Your task to perform on an android device: add a contact Image 0: 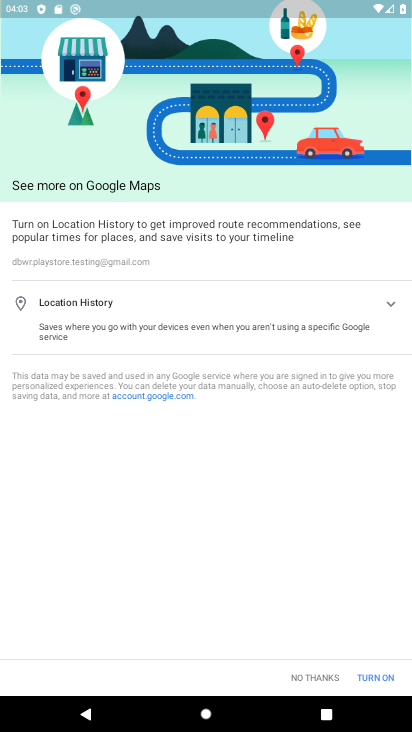
Step 0: click (322, 682)
Your task to perform on an android device: add a contact Image 1: 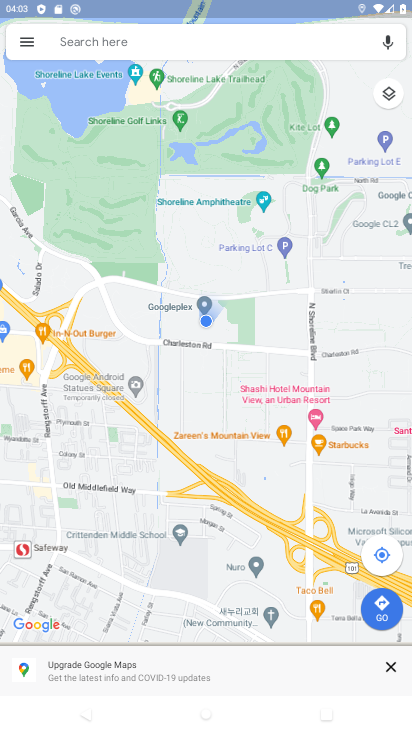
Step 1: press back button
Your task to perform on an android device: add a contact Image 2: 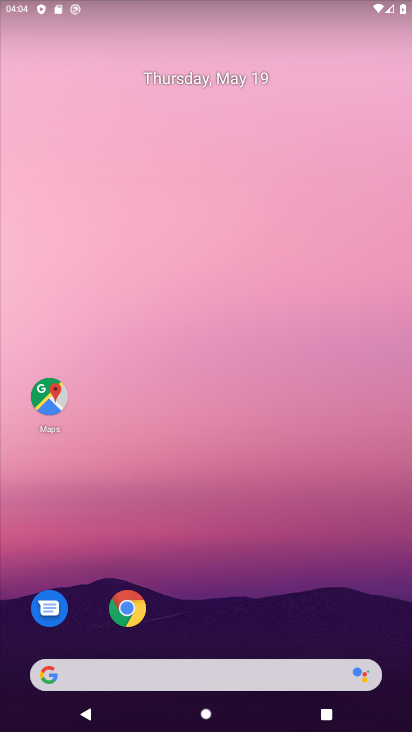
Step 2: drag from (257, 582) to (247, 135)
Your task to perform on an android device: add a contact Image 3: 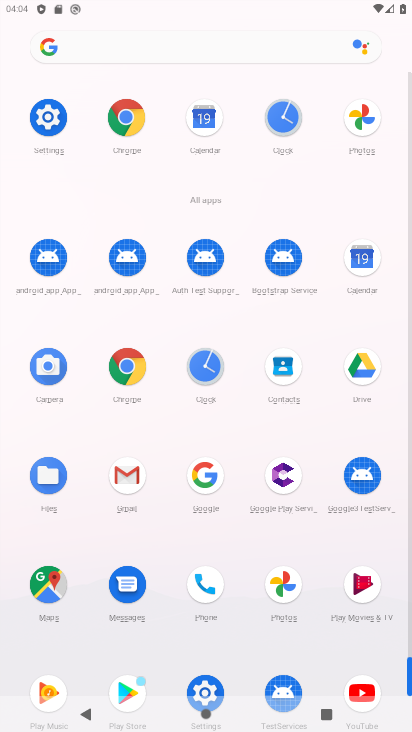
Step 3: click (287, 370)
Your task to perform on an android device: add a contact Image 4: 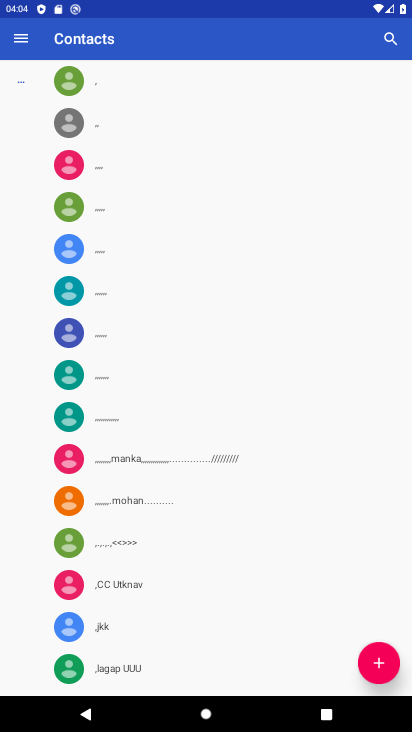
Step 4: click (383, 660)
Your task to perform on an android device: add a contact Image 5: 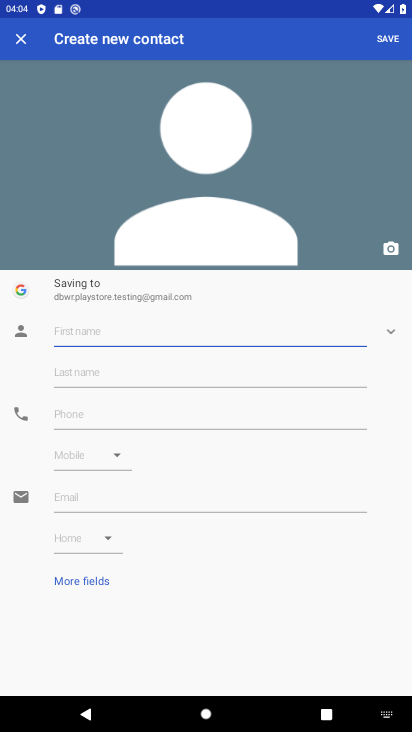
Step 5: click (142, 325)
Your task to perform on an android device: add a contact Image 6: 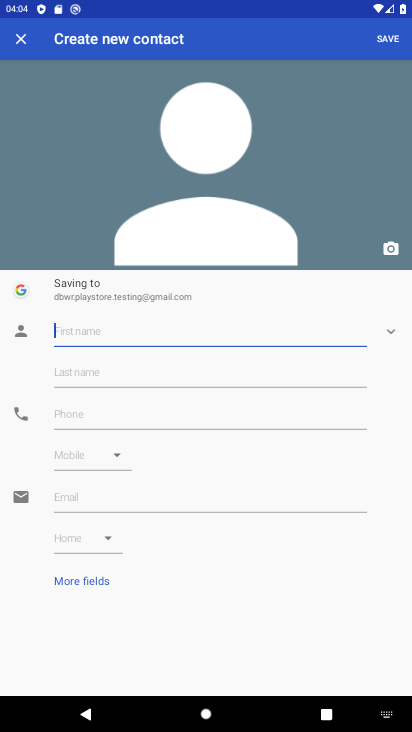
Step 6: type "Nathan"
Your task to perform on an android device: add a contact Image 7: 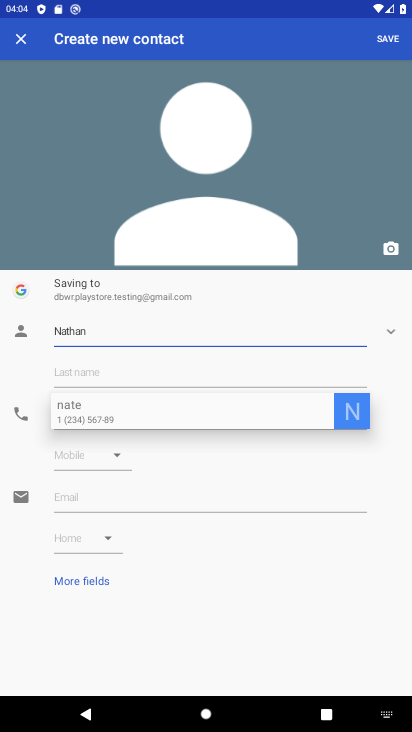
Step 7: click (209, 365)
Your task to perform on an android device: add a contact Image 8: 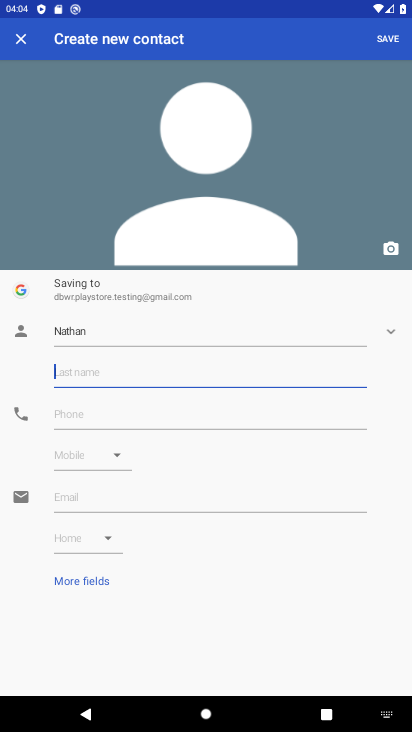
Step 8: type "Macculam"
Your task to perform on an android device: add a contact Image 9: 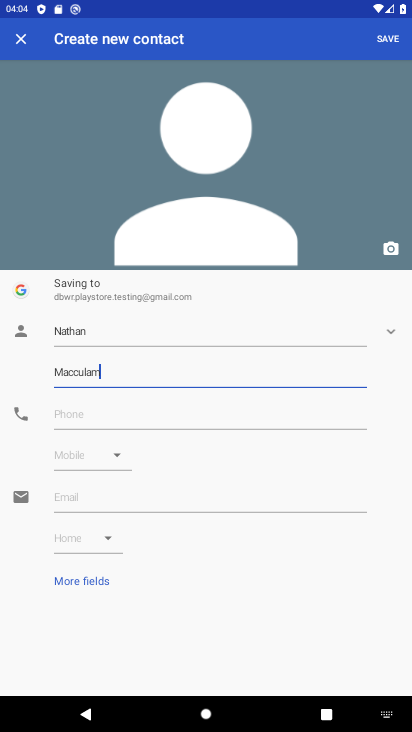
Step 9: click (145, 417)
Your task to perform on an android device: add a contact Image 10: 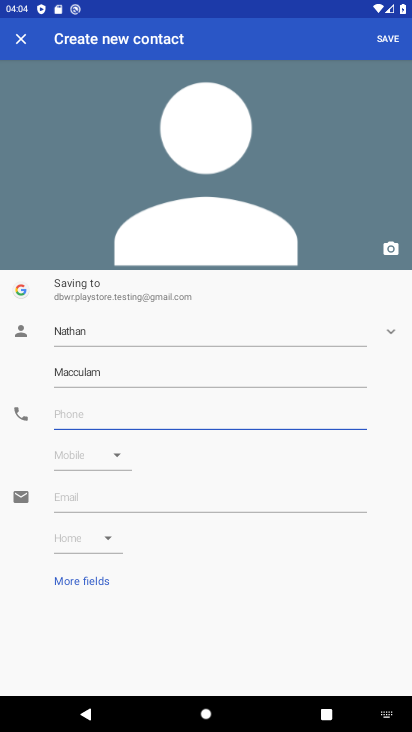
Step 10: type "0987898789876"
Your task to perform on an android device: add a contact Image 11: 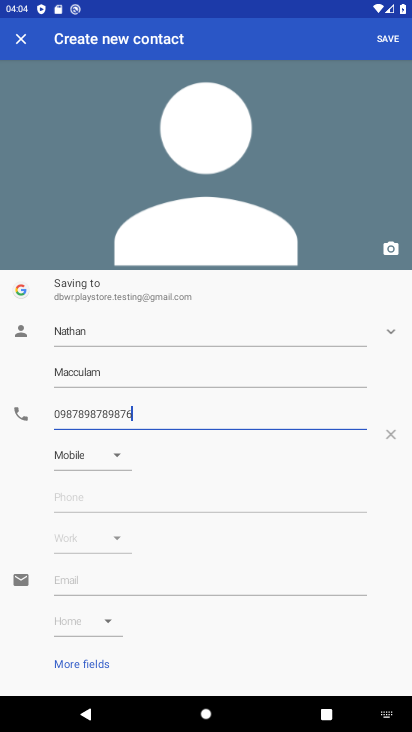
Step 11: type ""
Your task to perform on an android device: add a contact Image 12: 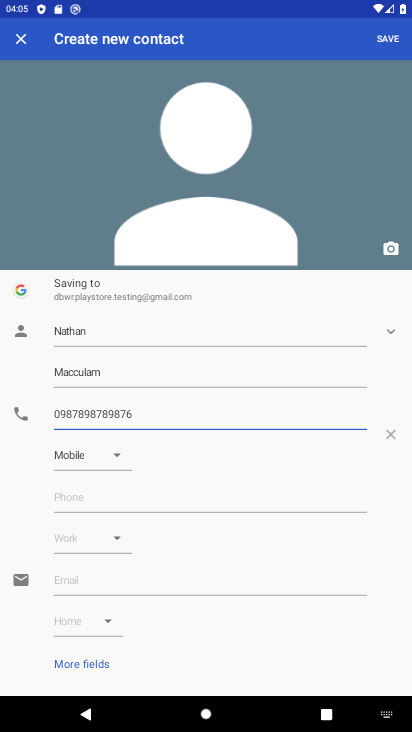
Step 12: click (386, 39)
Your task to perform on an android device: add a contact Image 13: 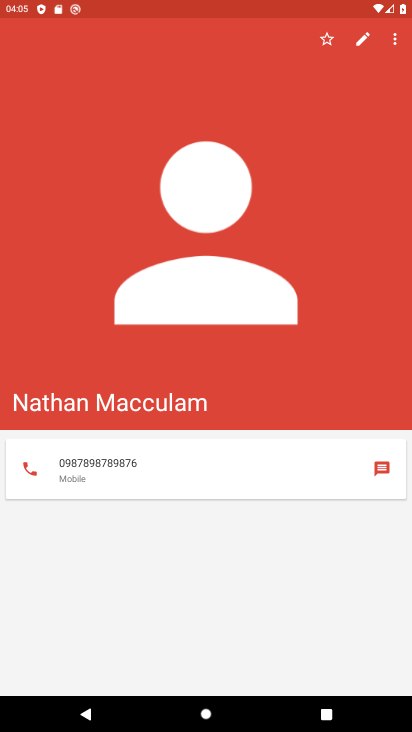
Step 13: task complete